Your task to perform on an android device: Open the stopwatch Image 0: 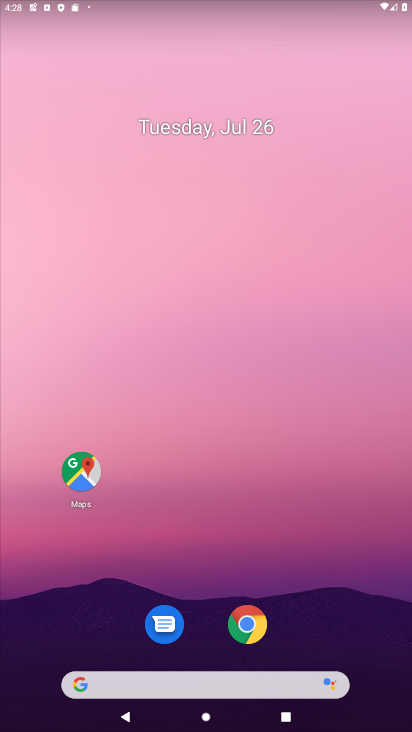
Step 0: drag from (297, 594) to (228, 47)
Your task to perform on an android device: Open the stopwatch Image 1: 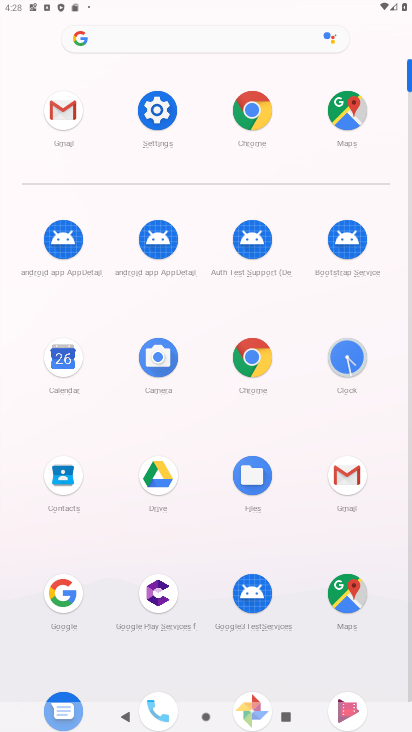
Step 1: click (347, 352)
Your task to perform on an android device: Open the stopwatch Image 2: 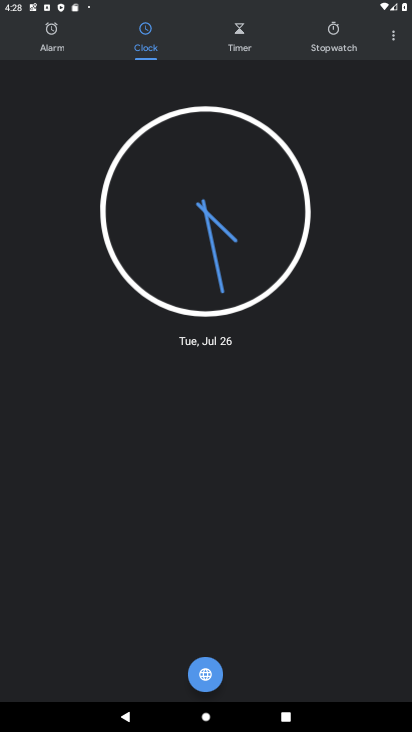
Step 2: click (326, 44)
Your task to perform on an android device: Open the stopwatch Image 3: 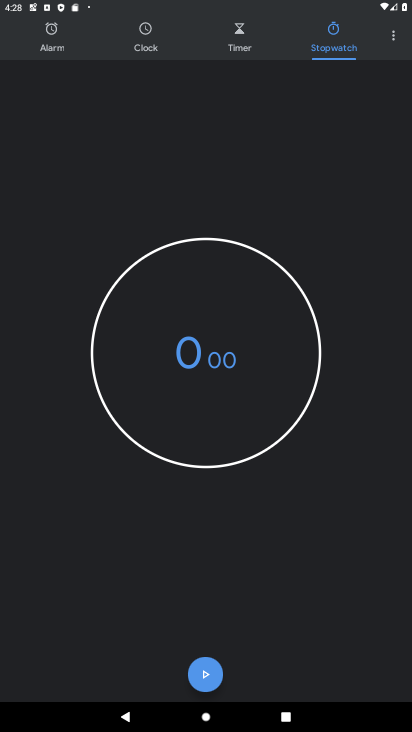
Step 3: click (200, 670)
Your task to perform on an android device: Open the stopwatch Image 4: 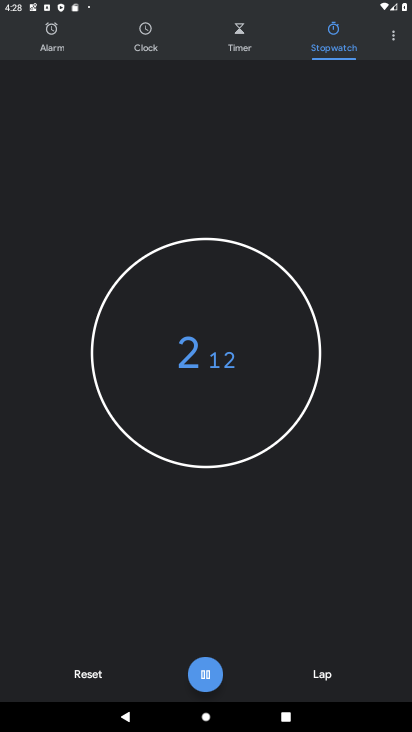
Step 4: task complete